Your task to perform on an android device: turn notification dots on Image 0: 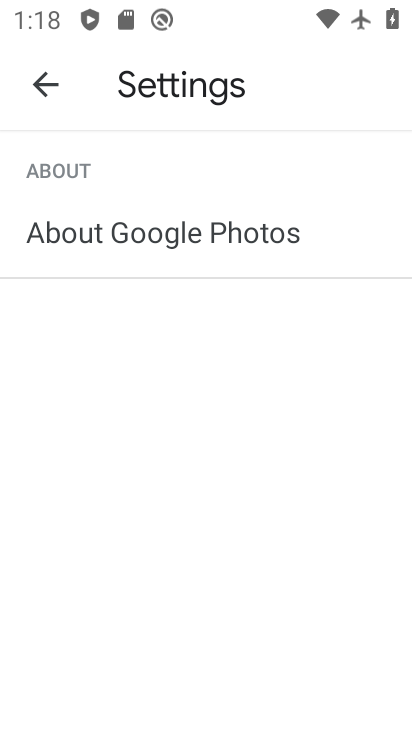
Step 0: press home button
Your task to perform on an android device: turn notification dots on Image 1: 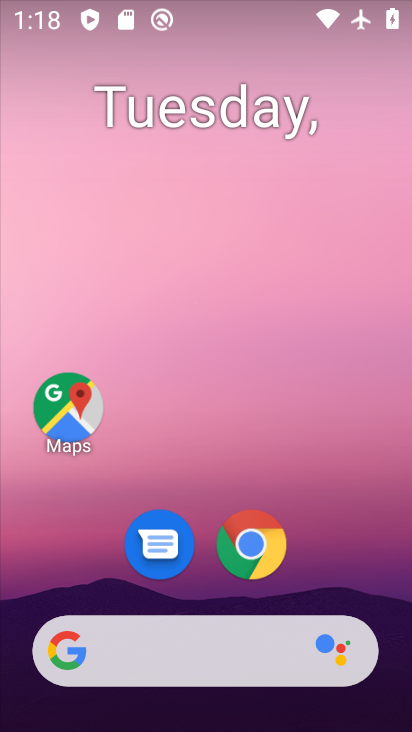
Step 1: drag from (397, 634) to (329, 94)
Your task to perform on an android device: turn notification dots on Image 2: 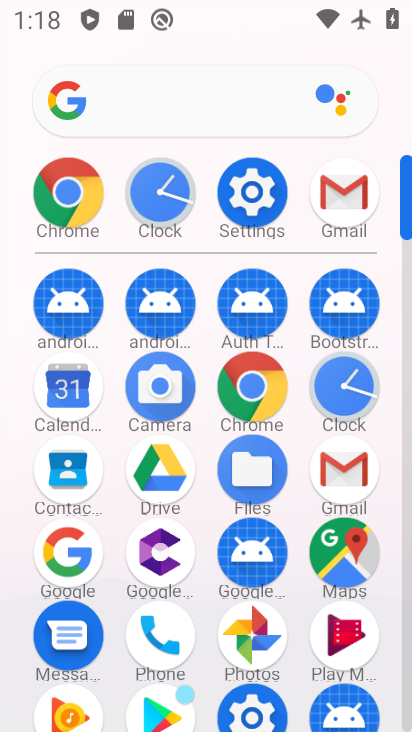
Step 2: click (407, 696)
Your task to perform on an android device: turn notification dots on Image 3: 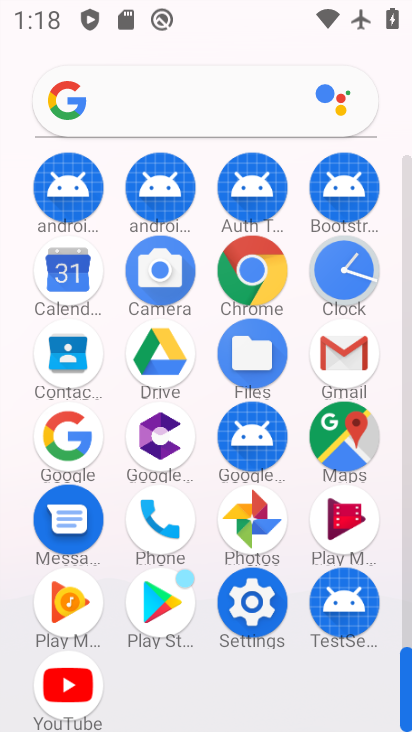
Step 3: click (251, 600)
Your task to perform on an android device: turn notification dots on Image 4: 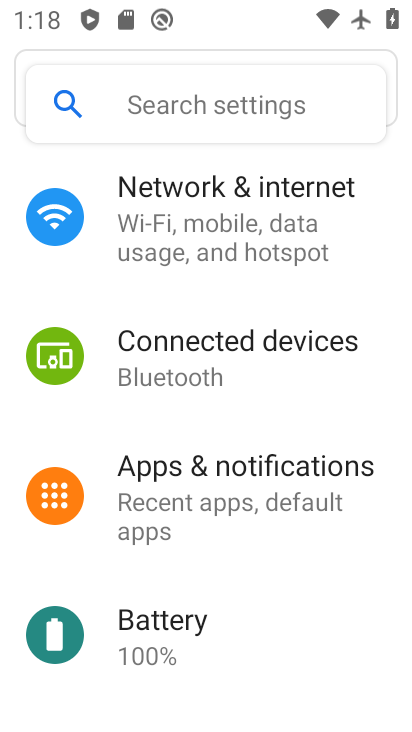
Step 4: click (216, 489)
Your task to perform on an android device: turn notification dots on Image 5: 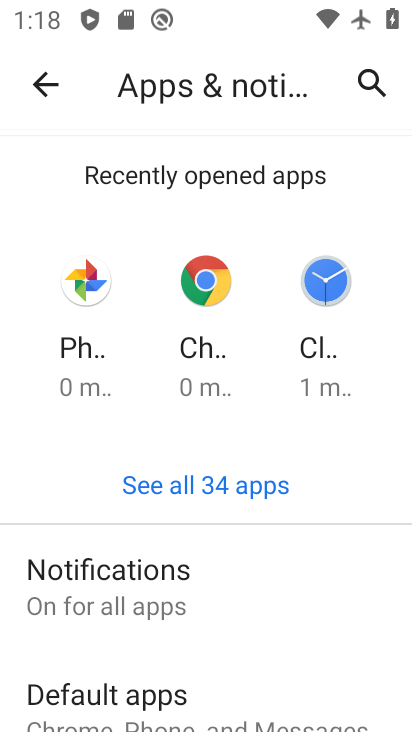
Step 5: click (105, 589)
Your task to perform on an android device: turn notification dots on Image 6: 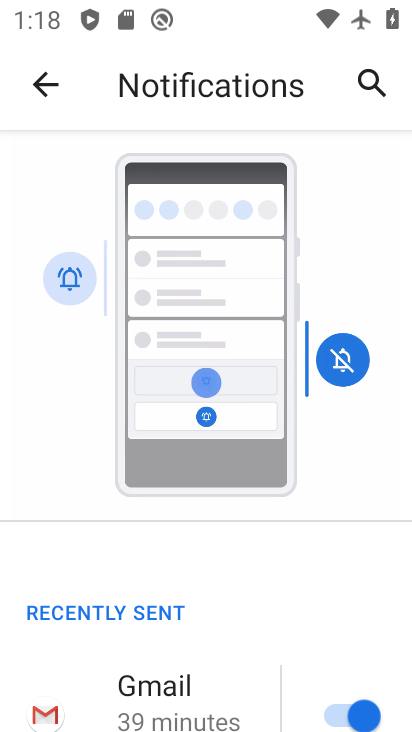
Step 6: drag from (279, 690) to (235, 197)
Your task to perform on an android device: turn notification dots on Image 7: 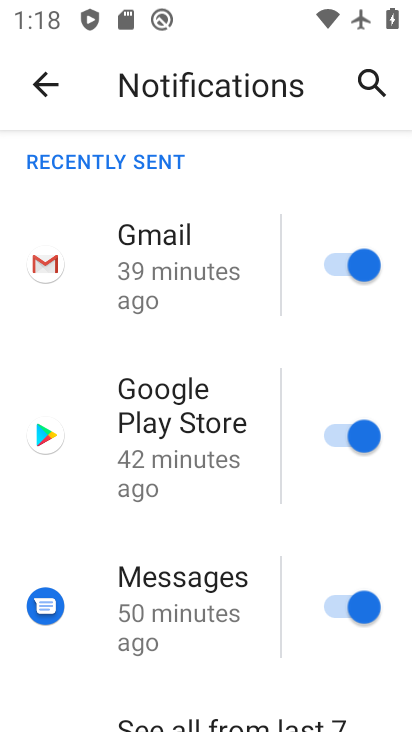
Step 7: drag from (276, 679) to (280, 224)
Your task to perform on an android device: turn notification dots on Image 8: 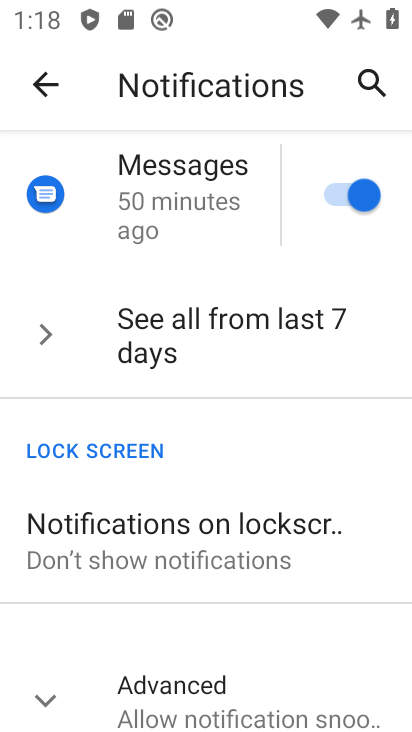
Step 8: click (54, 699)
Your task to perform on an android device: turn notification dots on Image 9: 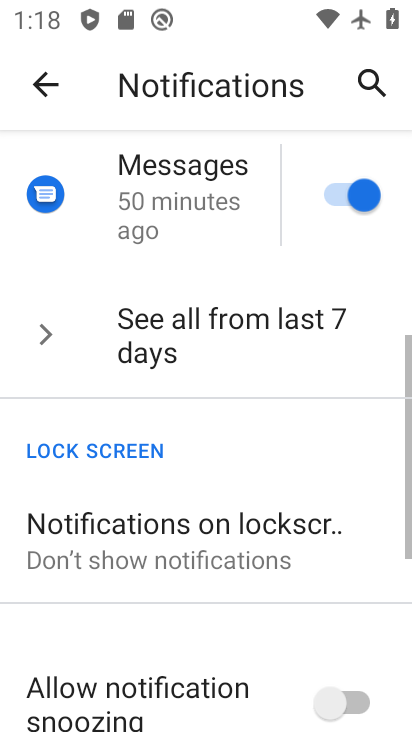
Step 9: task complete